Your task to perform on an android device: uninstall "The Home Depot" Image 0: 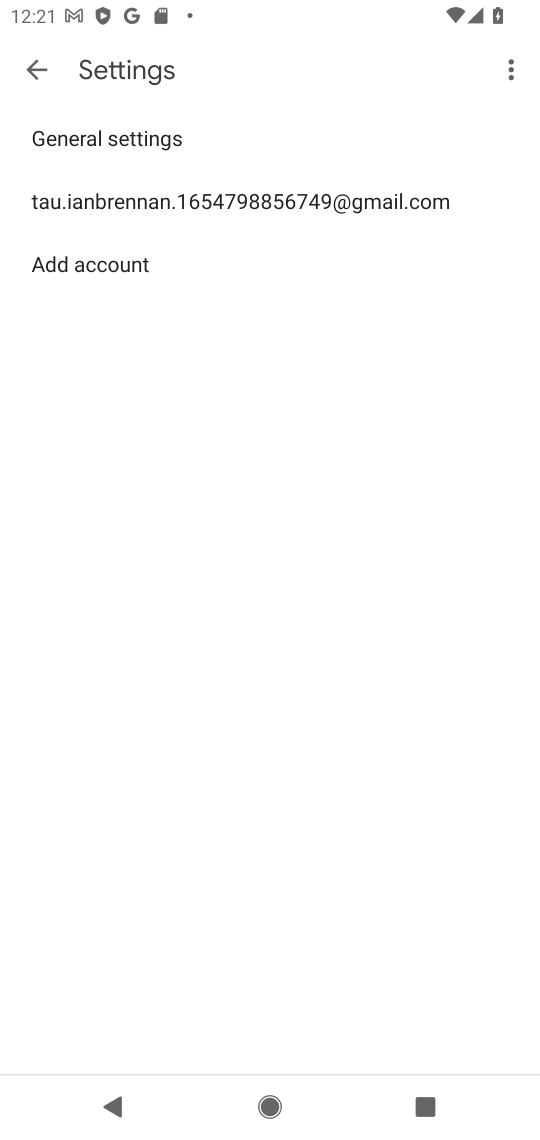
Step 0: press home button
Your task to perform on an android device: uninstall "The Home Depot" Image 1: 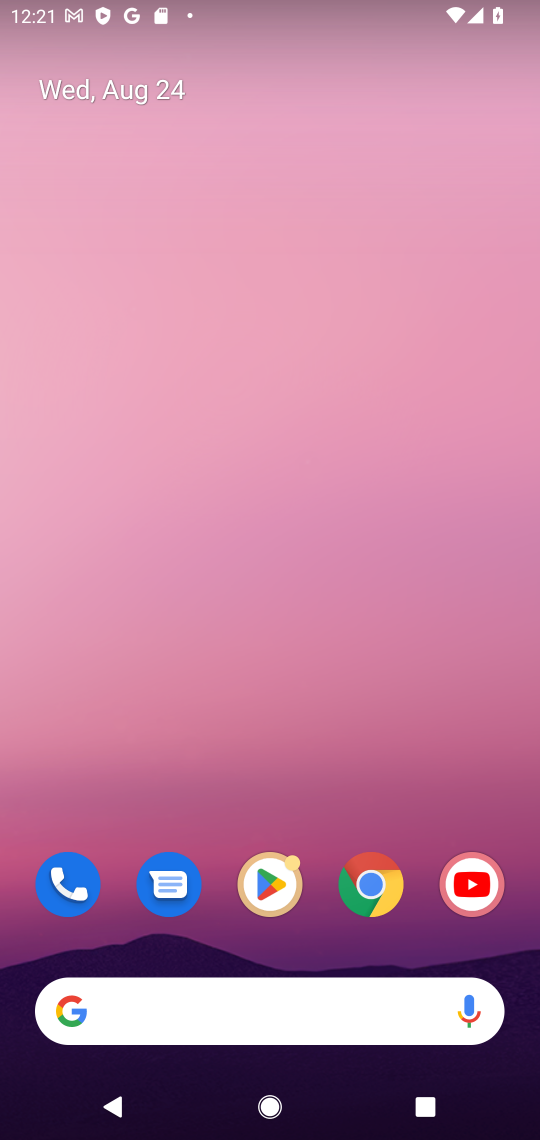
Step 1: drag from (260, 999) to (335, 101)
Your task to perform on an android device: uninstall "The Home Depot" Image 2: 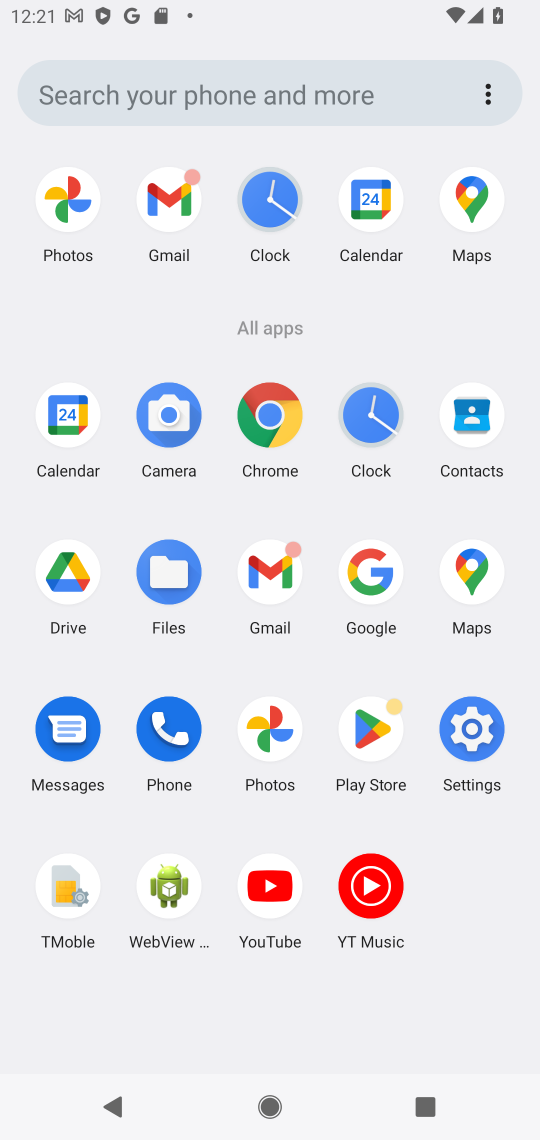
Step 2: click (374, 736)
Your task to perform on an android device: uninstall "The Home Depot" Image 3: 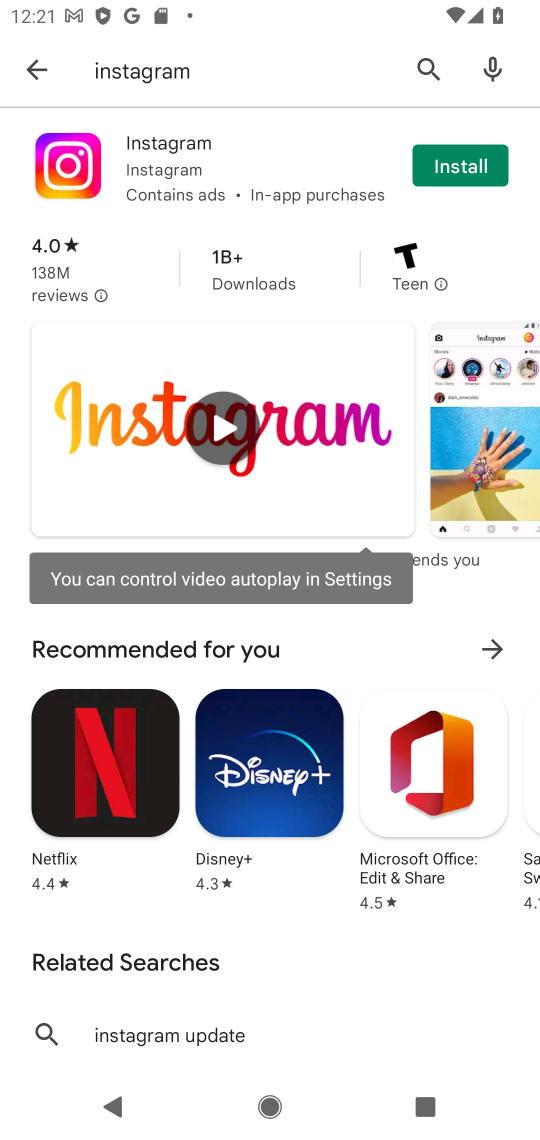
Step 3: press back button
Your task to perform on an android device: uninstall "The Home Depot" Image 4: 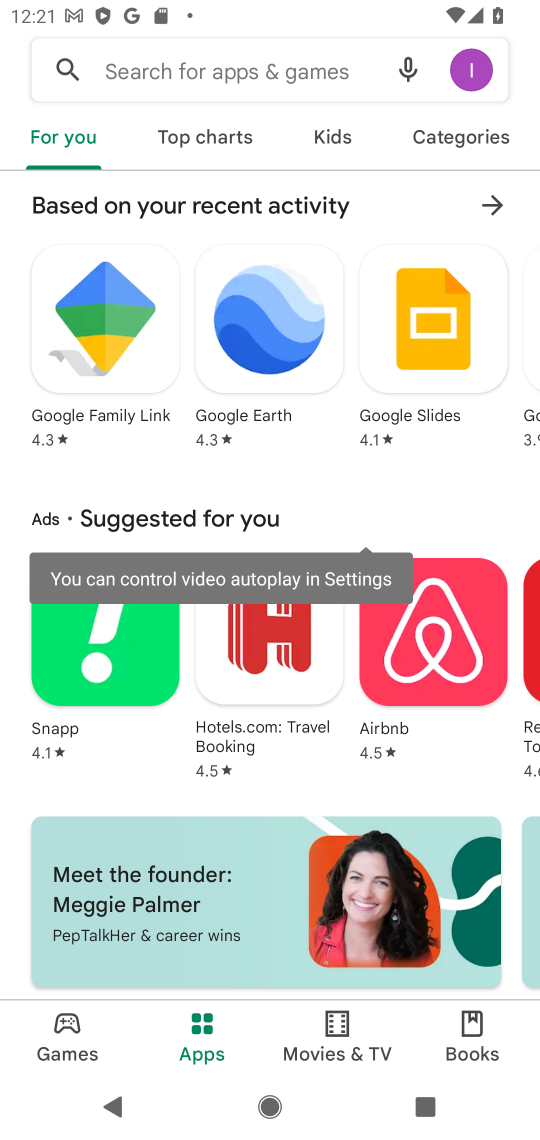
Step 4: click (231, 85)
Your task to perform on an android device: uninstall "The Home Depot" Image 5: 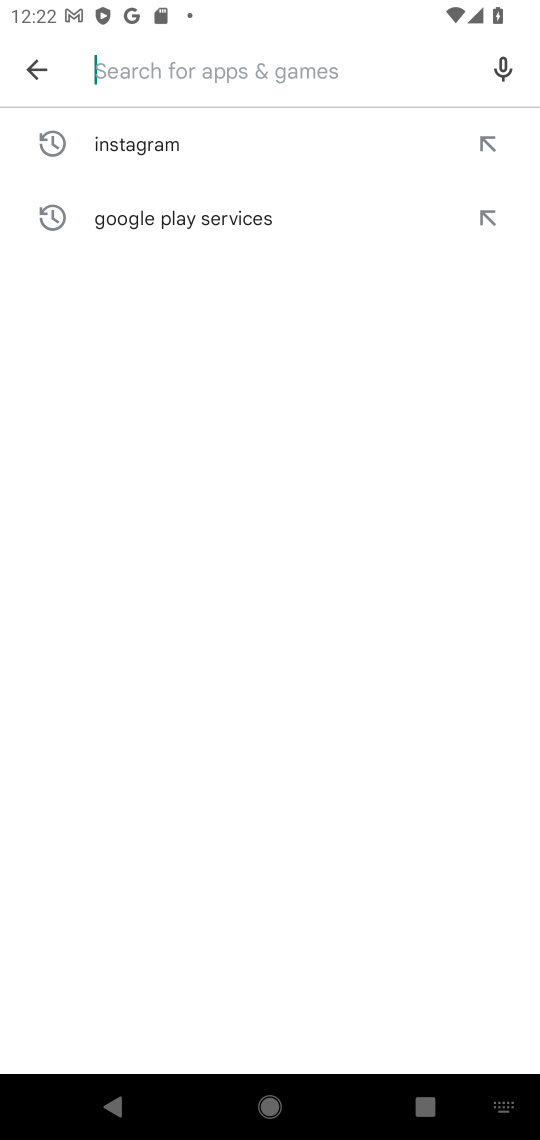
Step 5: type "The Home Depot"
Your task to perform on an android device: uninstall "The Home Depot" Image 6: 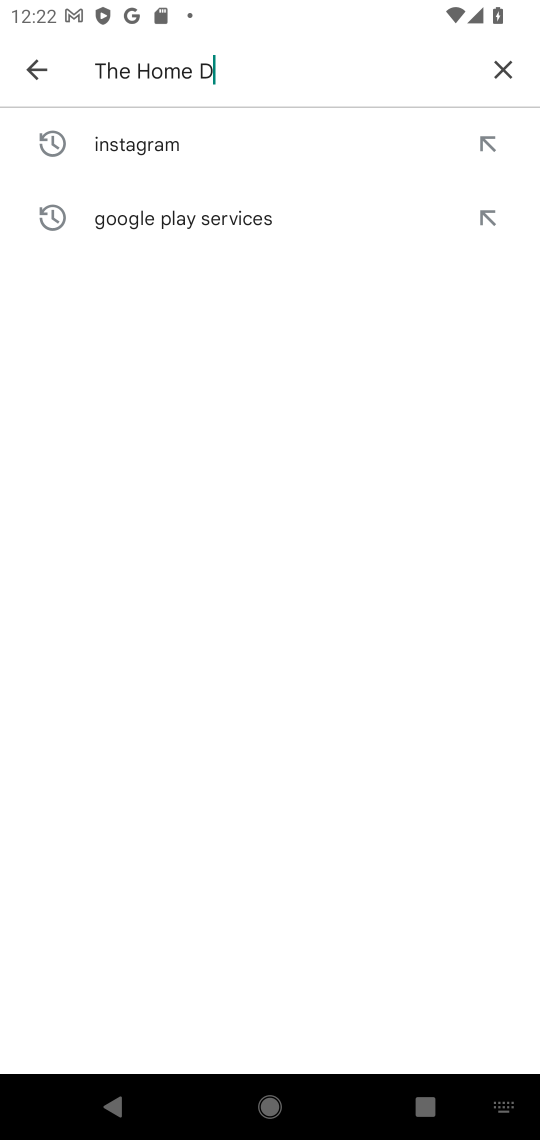
Step 6: type ""
Your task to perform on an android device: uninstall "The Home Depot" Image 7: 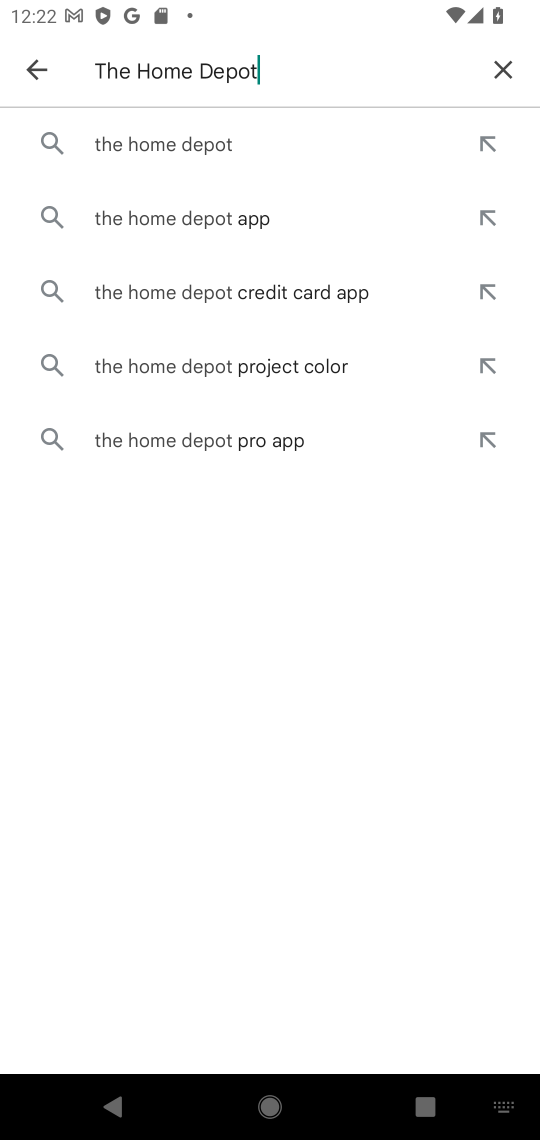
Step 7: click (204, 141)
Your task to perform on an android device: uninstall "The Home Depot" Image 8: 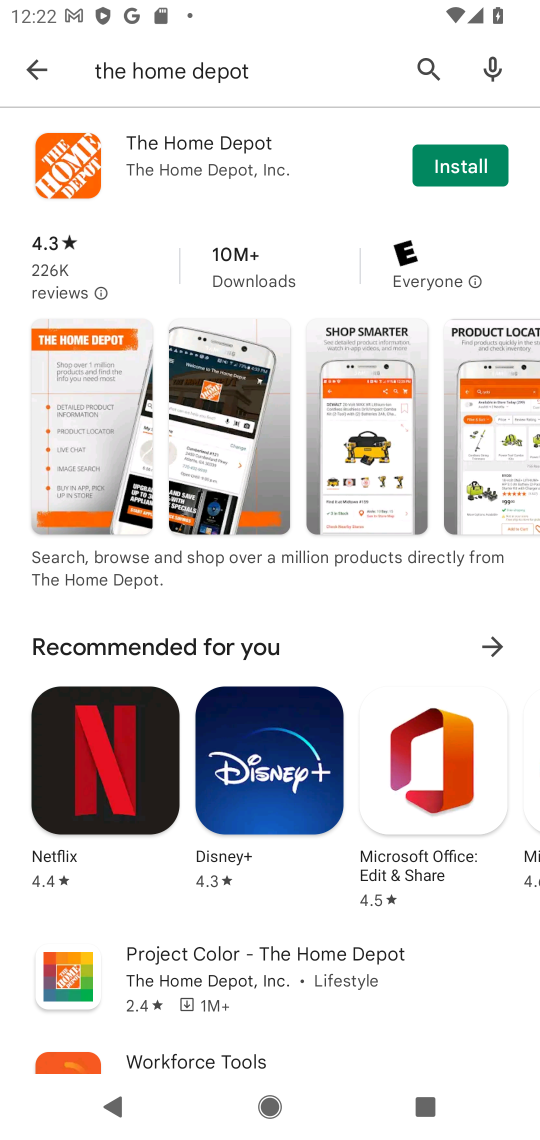
Step 8: task complete